Your task to perform on an android device: Open network settings Image 0: 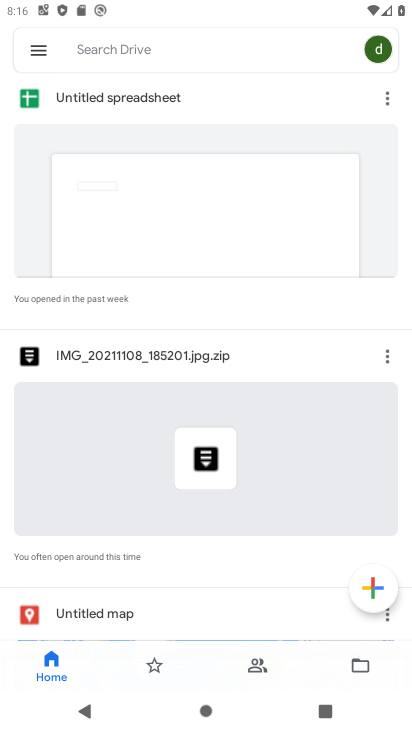
Step 0: press home button
Your task to perform on an android device: Open network settings Image 1: 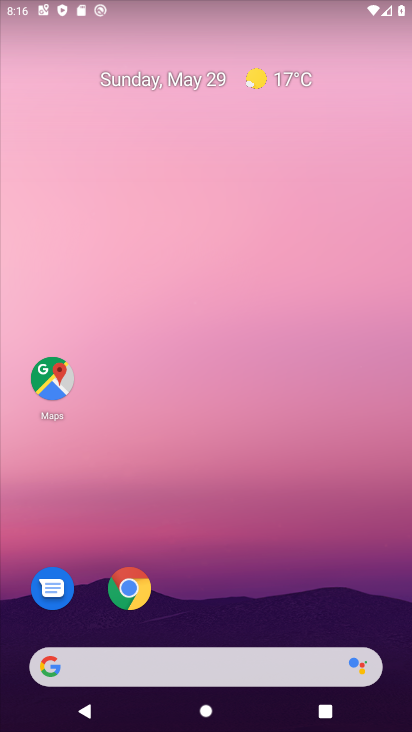
Step 1: drag from (150, 642) to (306, 112)
Your task to perform on an android device: Open network settings Image 2: 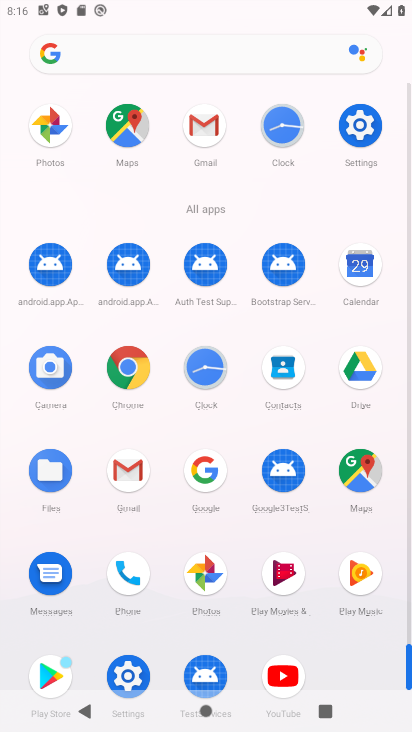
Step 2: click (127, 670)
Your task to perform on an android device: Open network settings Image 3: 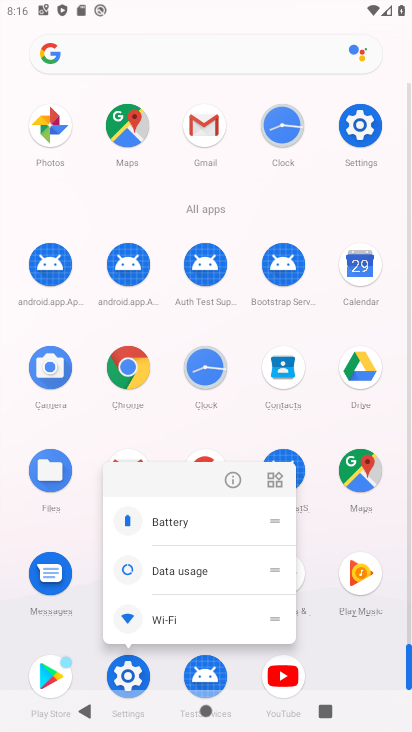
Step 3: click (127, 670)
Your task to perform on an android device: Open network settings Image 4: 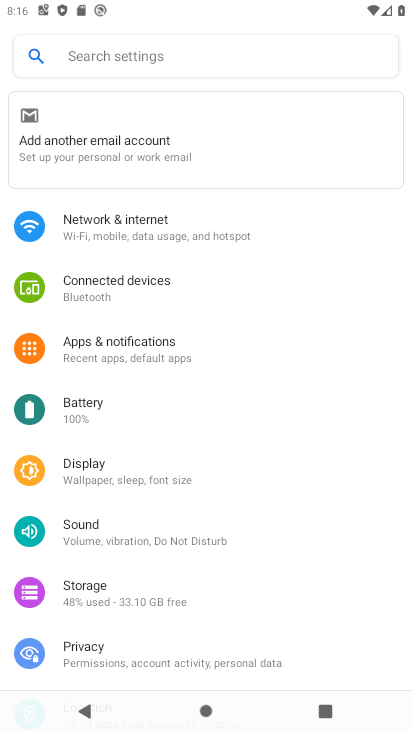
Step 4: click (187, 232)
Your task to perform on an android device: Open network settings Image 5: 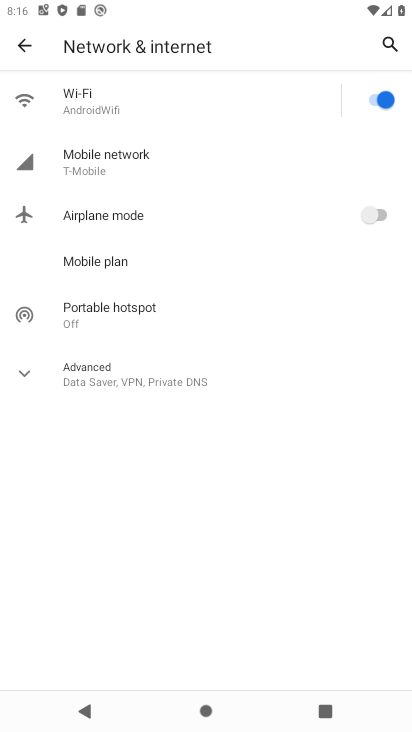
Step 5: click (141, 165)
Your task to perform on an android device: Open network settings Image 6: 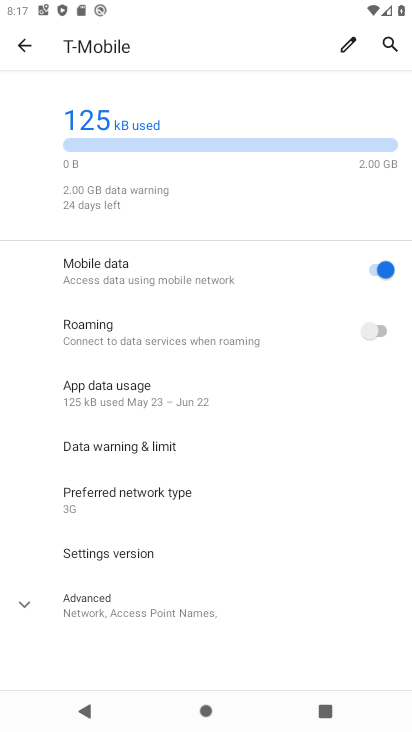
Step 6: task complete